Your task to perform on an android device: uninstall "Lyft - Rideshare, Bikes, Scooters & Transit" Image 0: 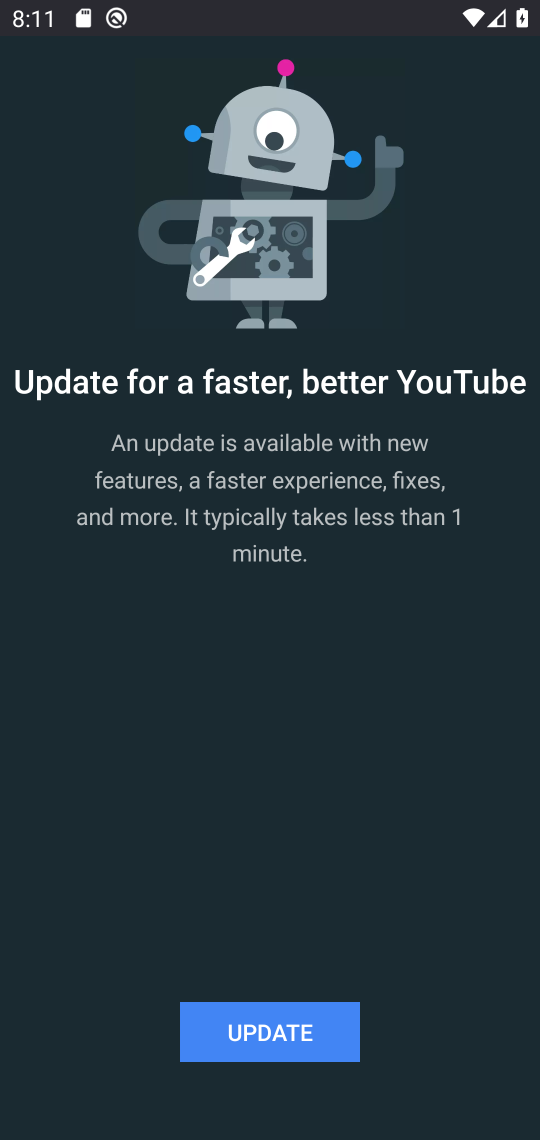
Step 0: press home button
Your task to perform on an android device: uninstall "Lyft - Rideshare, Bikes, Scooters & Transit" Image 1: 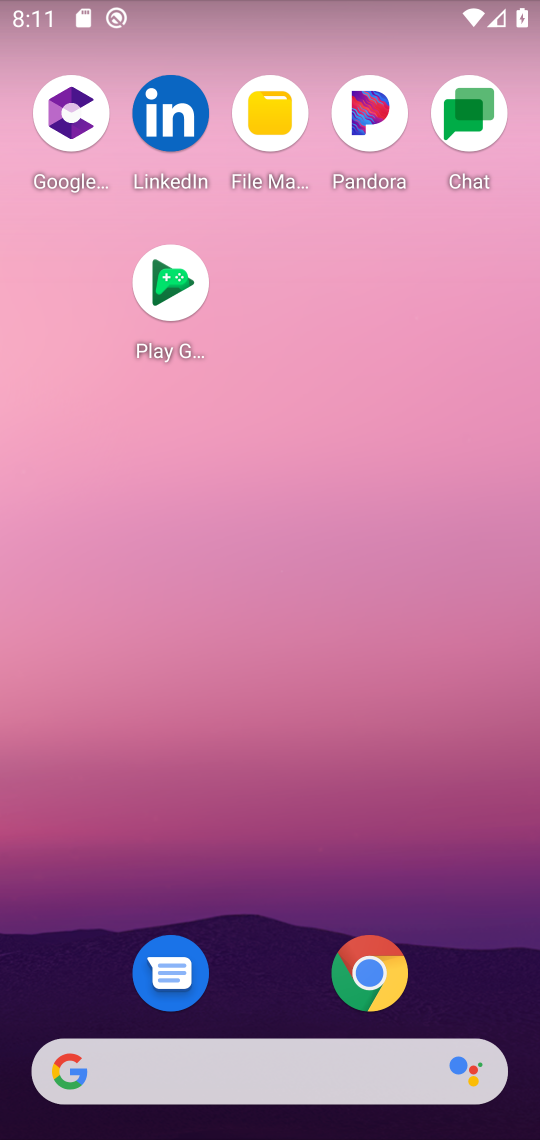
Step 1: drag from (256, 223) to (256, 24)
Your task to perform on an android device: uninstall "Lyft - Rideshare, Bikes, Scooters & Transit" Image 2: 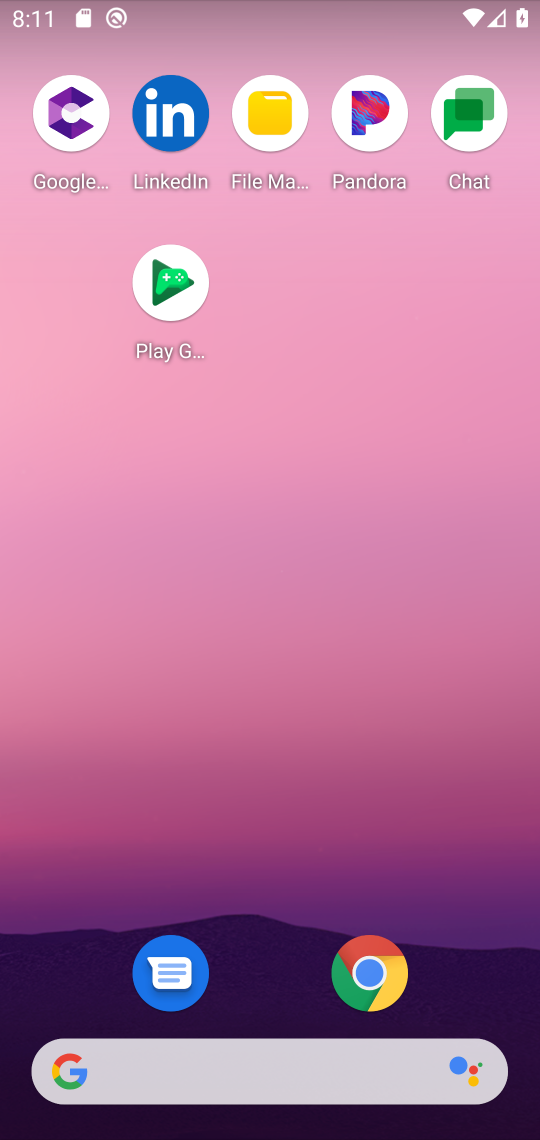
Step 2: drag from (238, 866) to (238, 130)
Your task to perform on an android device: uninstall "Lyft - Rideshare, Bikes, Scooters & Transit" Image 3: 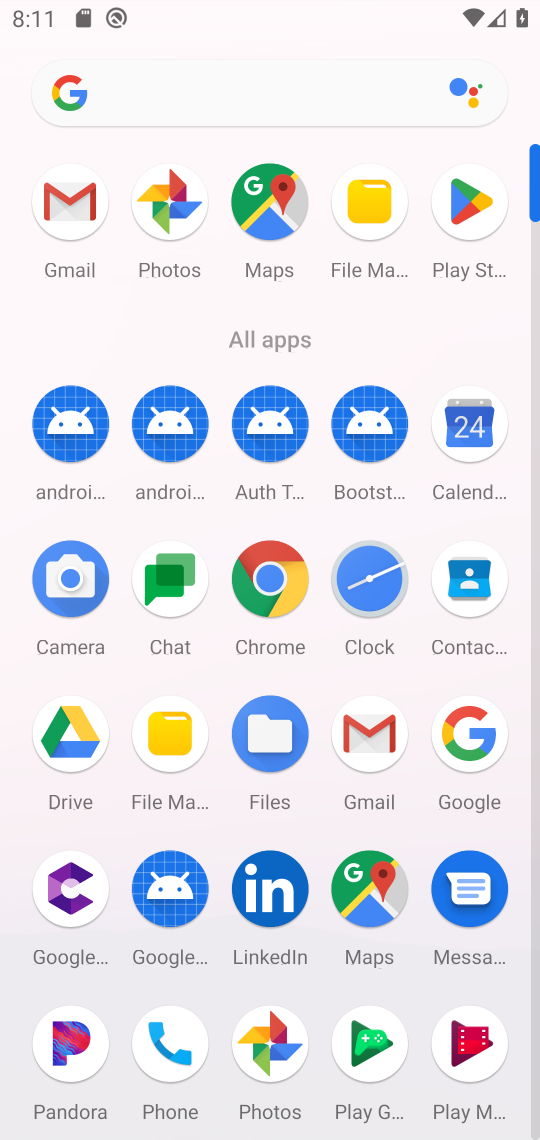
Step 3: click (457, 184)
Your task to perform on an android device: uninstall "Lyft - Rideshare, Bikes, Scooters & Transit" Image 4: 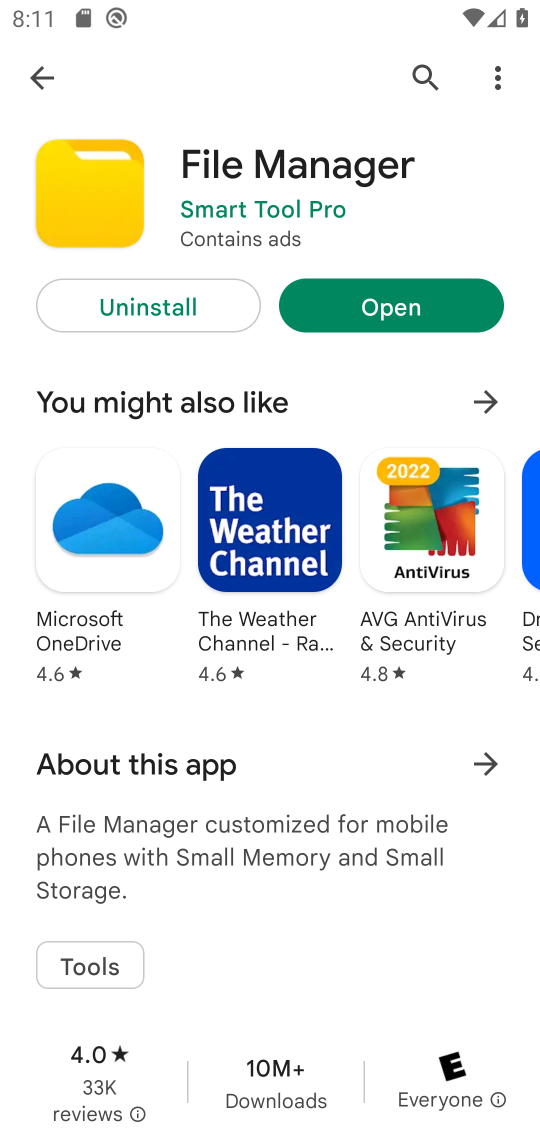
Step 4: click (29, 82)
Your task to perform on an android device: uninstall "Lyft - Rideshare, Bikes, Scooters & Transit" Image 5: 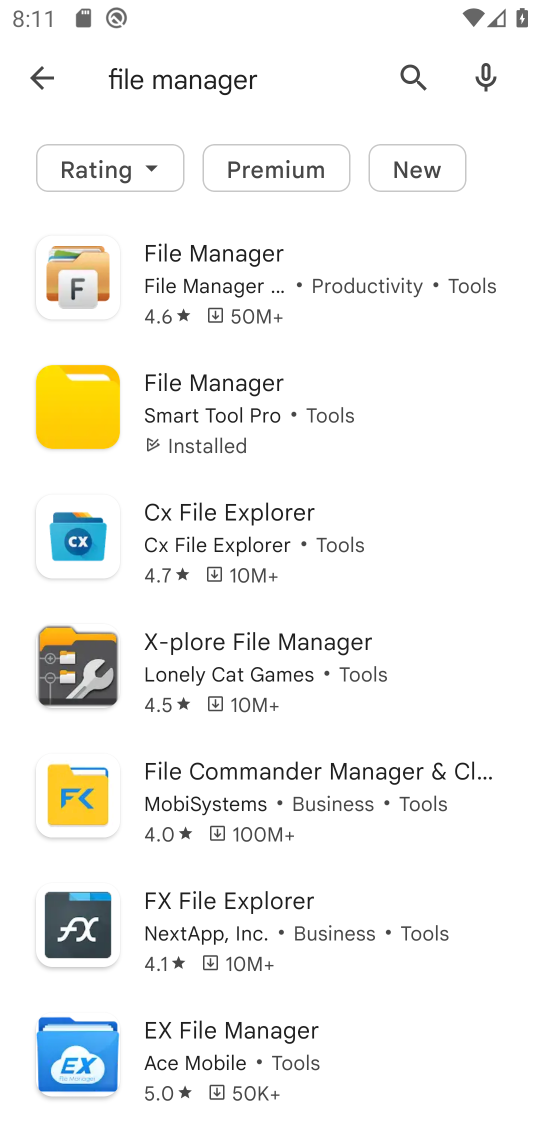
Step 5: click (39, 82)
Your task to perform on an android device: uninstall "Lyft - Rideshare, Bikes, Scooters & Transit" Image 6: 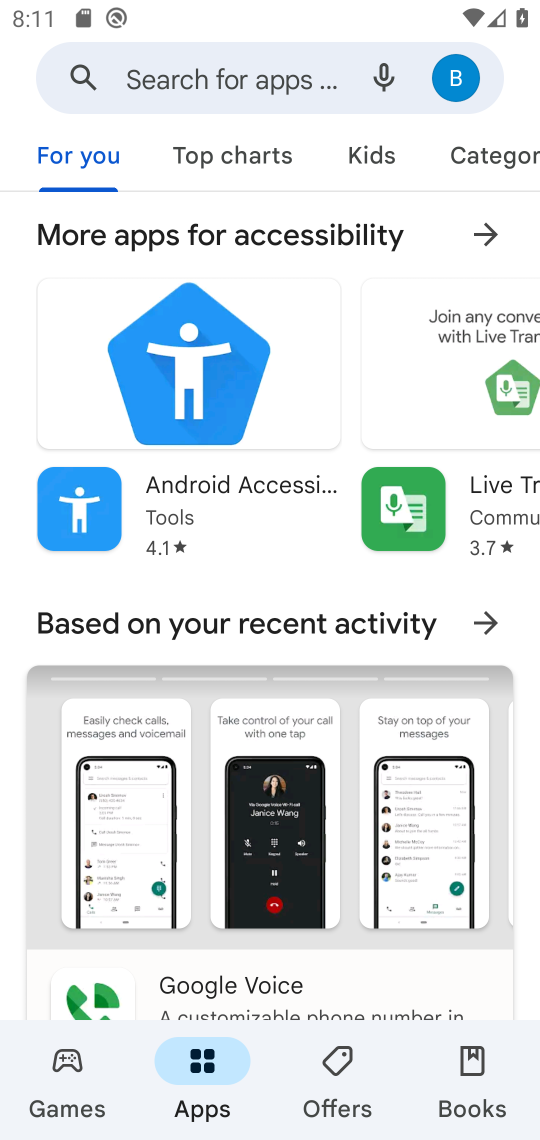
Step 6: click (157, 82)
Your task to perform on an android device: uninstall "Lyft - Rideshare, Bikes, Scooters & Transit" Image 7: 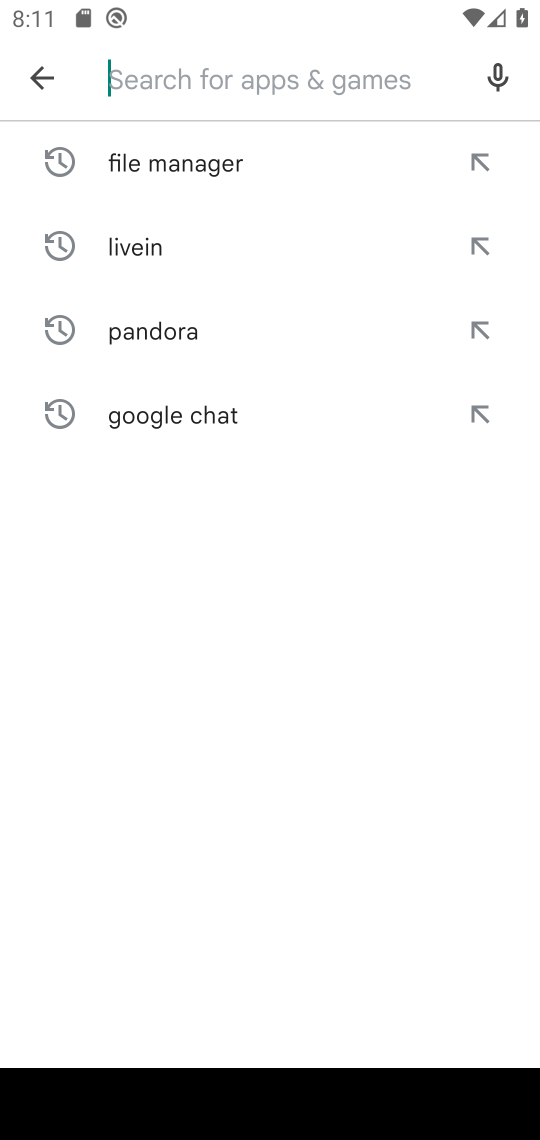
Step 7: type "Lyft"
Your task to perform on an android device: uninstall "Lyft - Rideshare, Bikes, Scooters & Transit" Image 8: 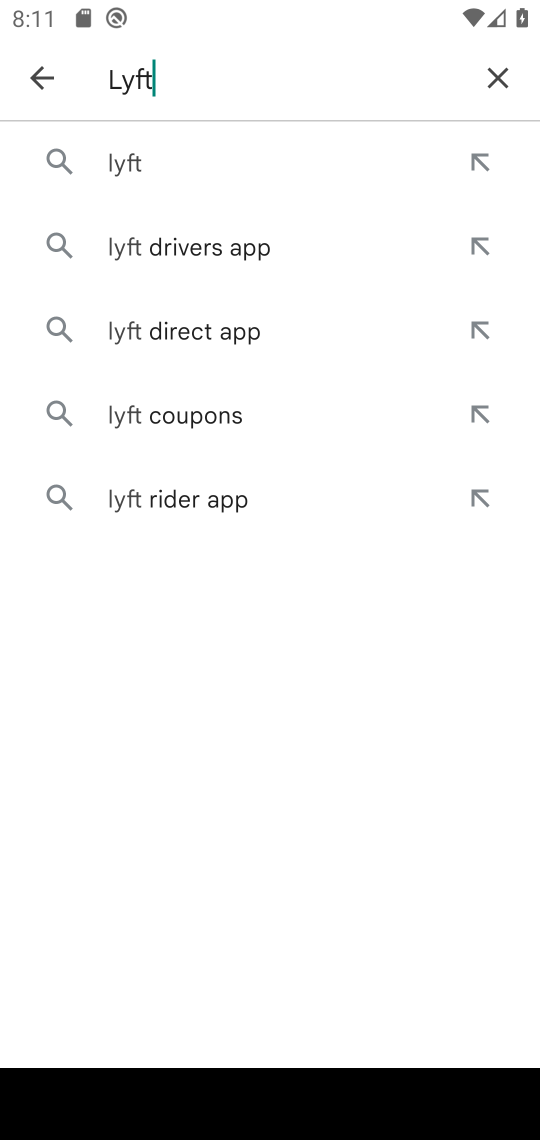
Step 8: click (131, 162)
Your task to perform on an android device: uninstall "Lyft - Rideshare, Bikes, Scooters & Transit" Image 9: 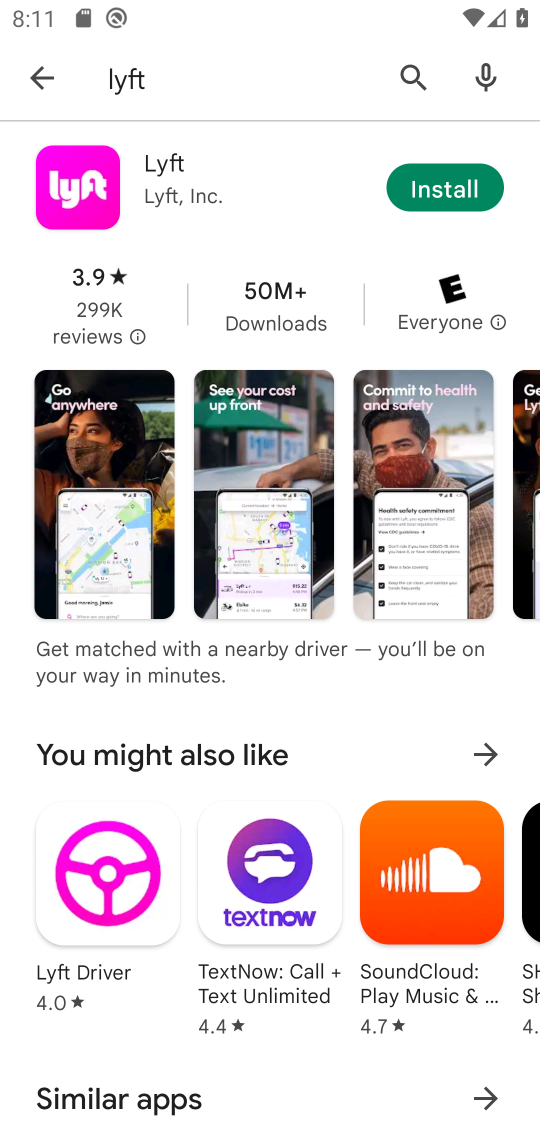
Step 9: task complete